Your task to perform on an android device: Show me popular videos on Youtube Image 0: 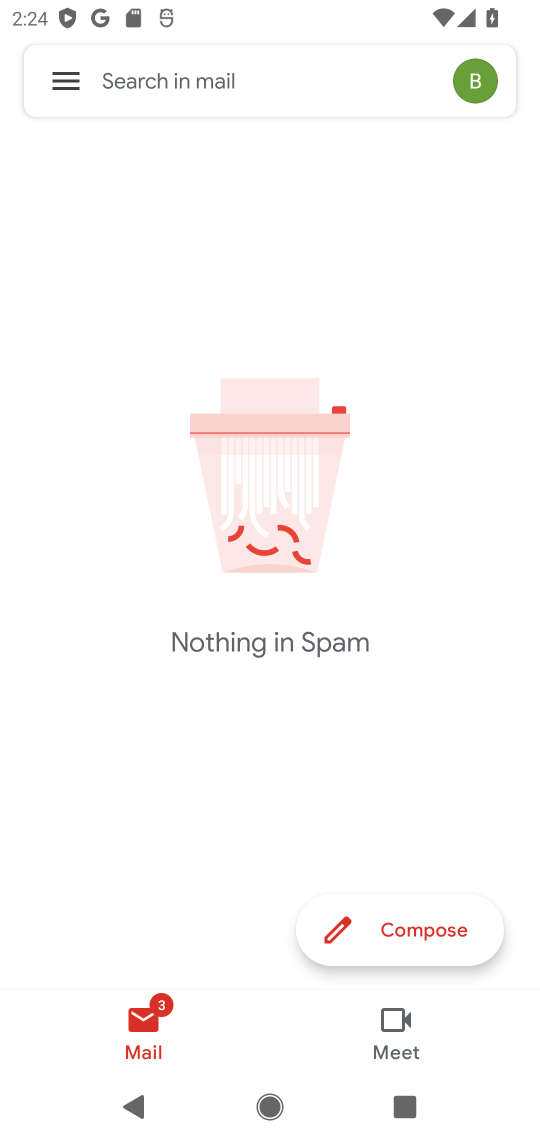
Step 0: press home button
Your task to perform on an android device: Show me popular videos on Youtube Image 1: 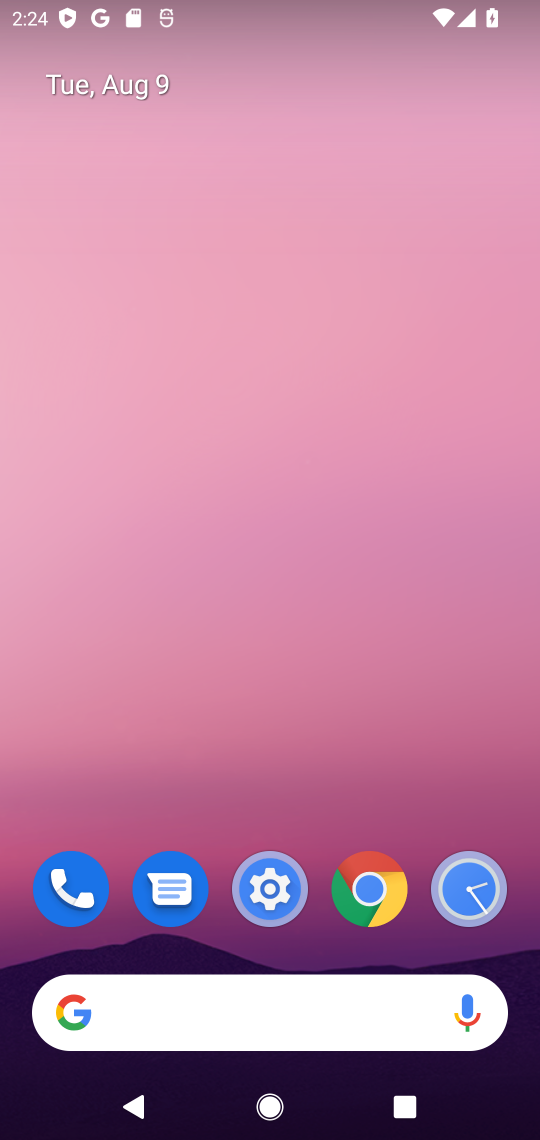
Step 1: drag from (269, 793) to (347, 2)
Your task to perform on an android device: Show me popular videos on Youtube Image 2: 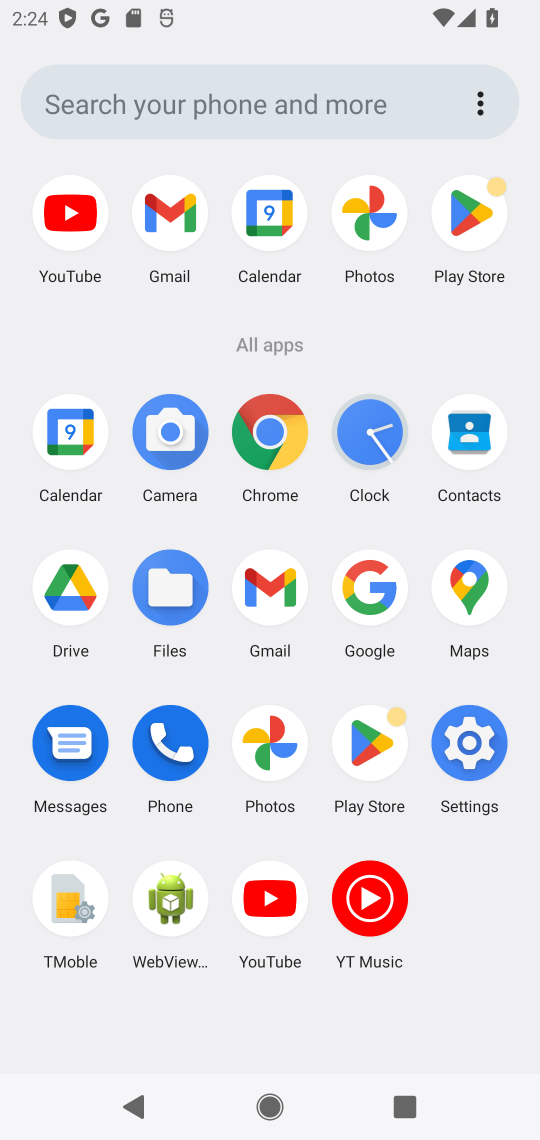
Step 2: click (280, 894)
Your task to perform on an android device: Show me popular videos on Youtube Image 3: 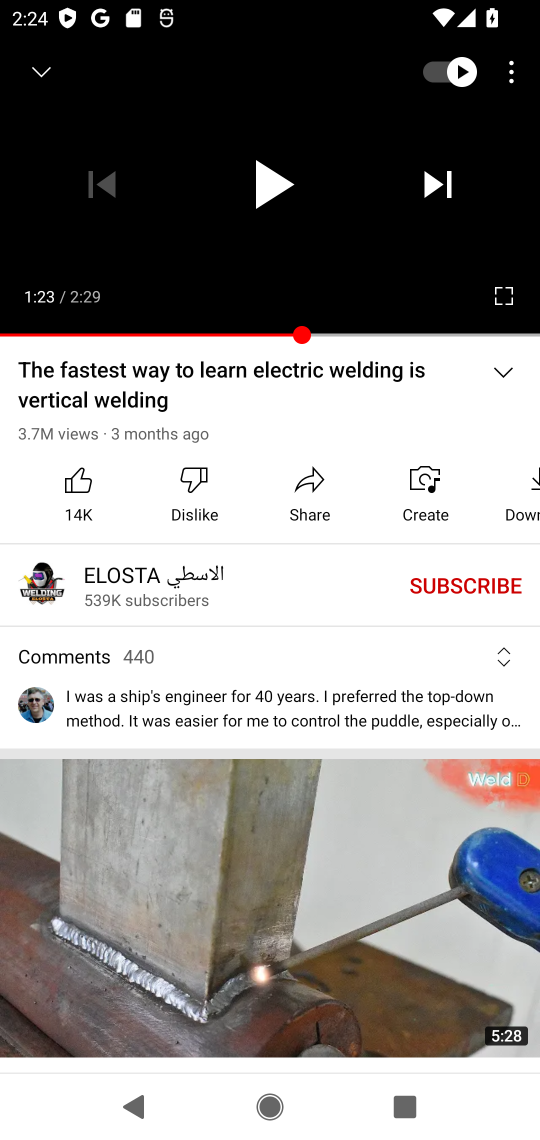
Step 3: press back button
Your task to perform on an android device: Show me popular videos on Youtube Image 4: 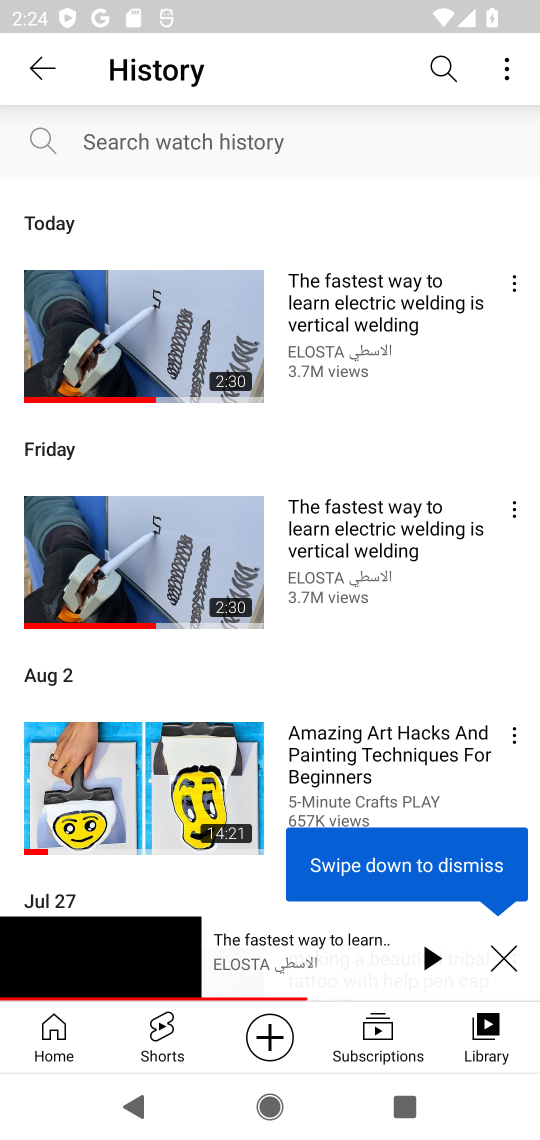
Step 4: press back button
Your task to perform on an android device: Show me popular videos on Youtube Image 5: 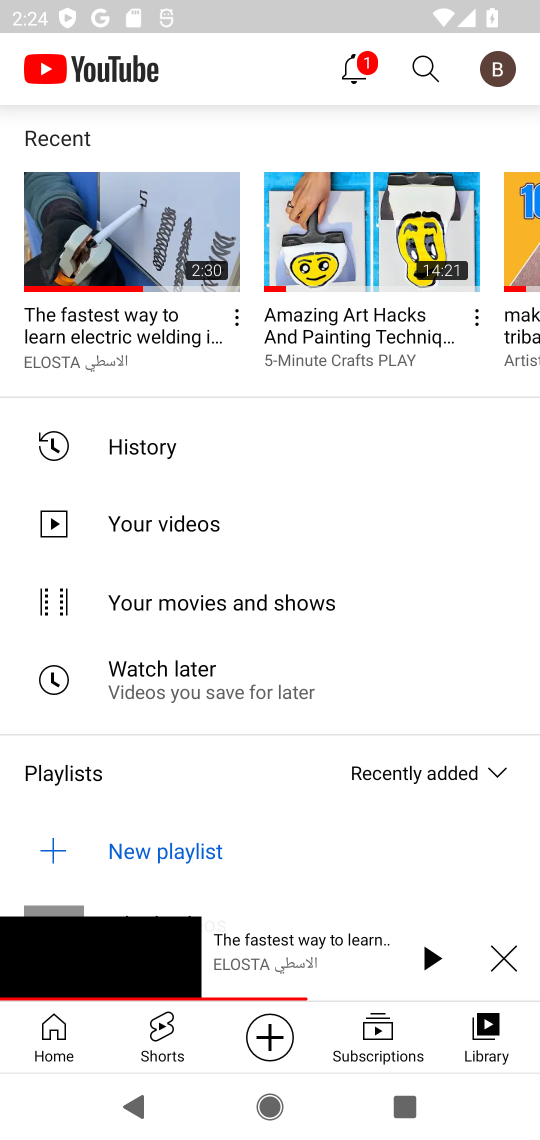
Step 5: press back button
Your task to perform on an android device: Show me popular videos on Youtube Image 6: 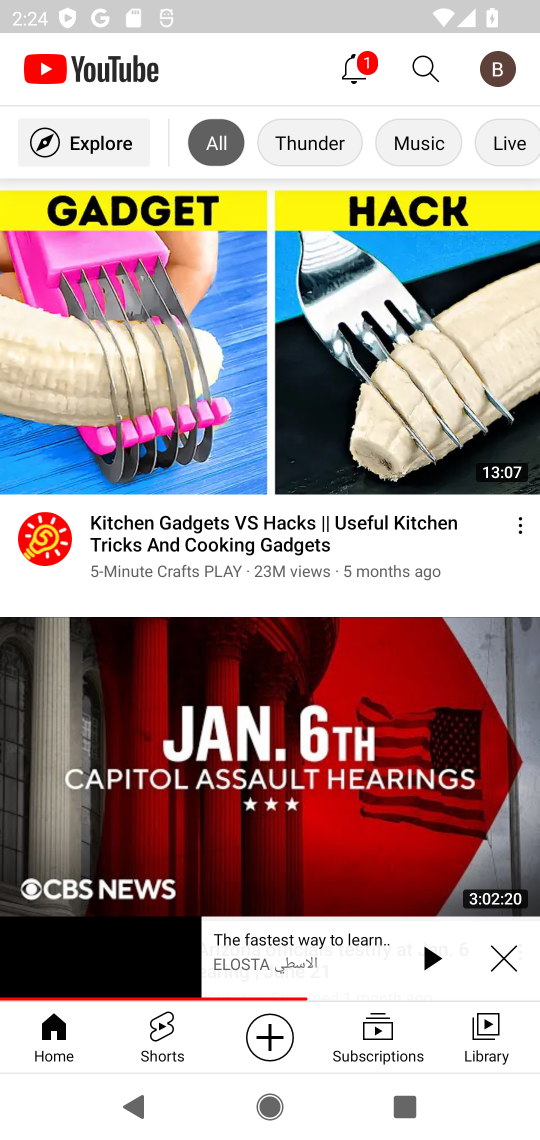
Step 6: click (432, 67)
Your task to perform on an android device: Show me popular videos on Youtube Image 7: 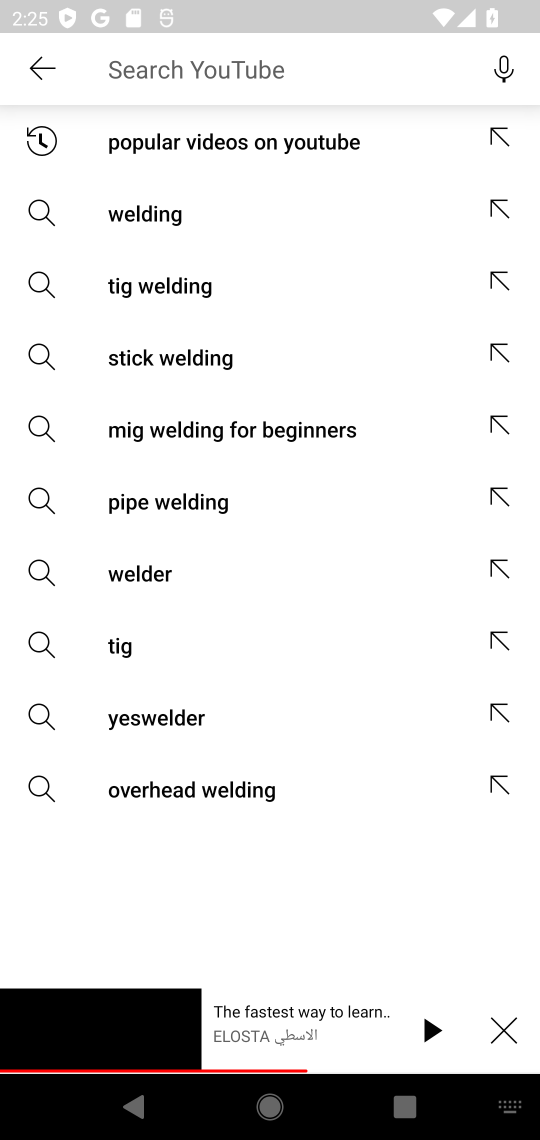
Step 7: click (307, 143)
Your task to perform on an android device: Show me popular videos on Youtube Image 8: 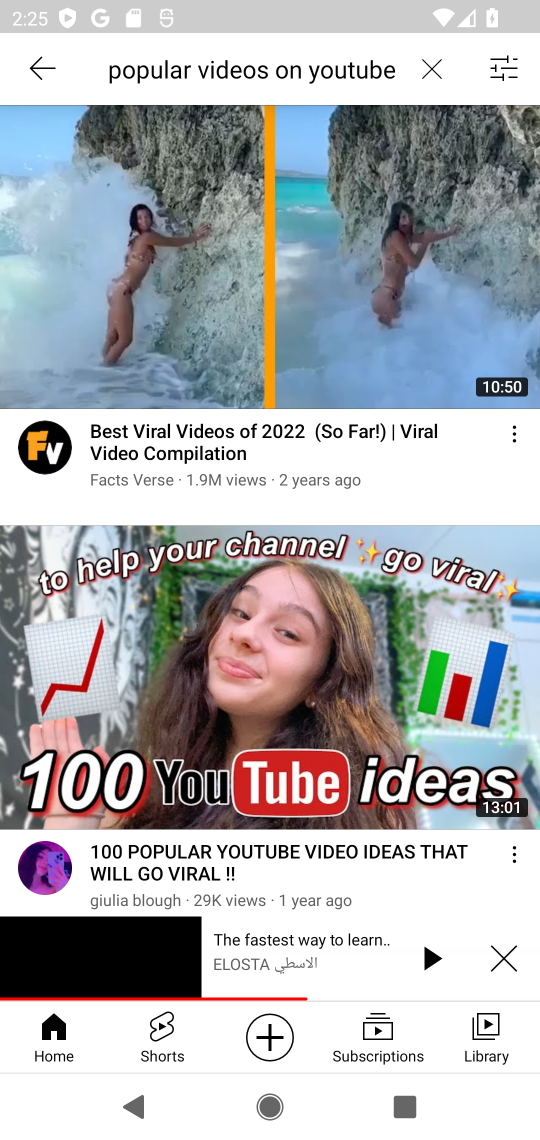
Step 8: click (188, 298)
Your task to perform on an android device: Show me popular videos on Youtube Image 9: 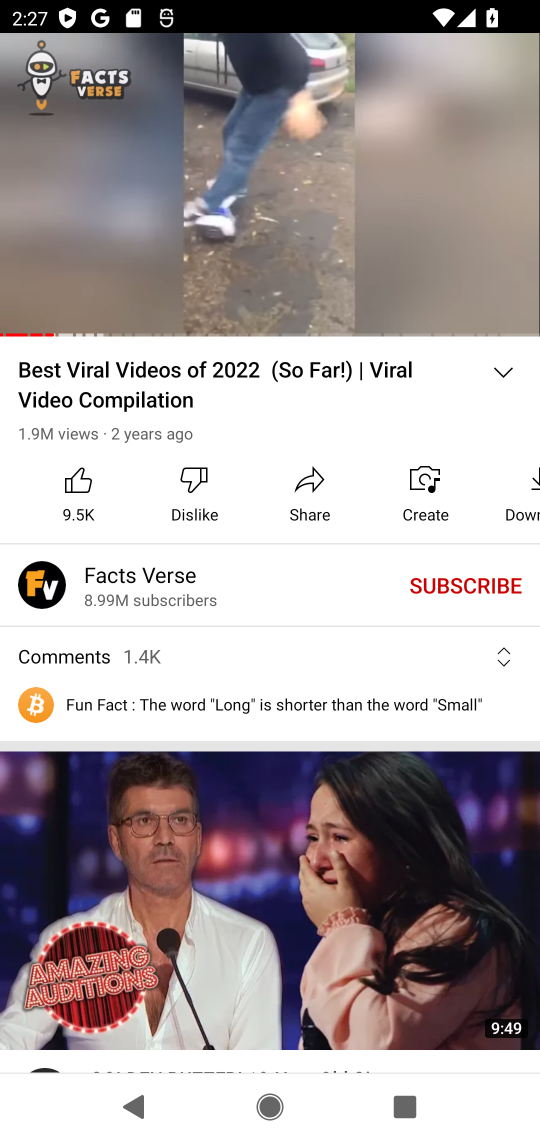
Step 9: task complete